Your task to perform on an android device: Is it going to rain tomorrow? Image 0: 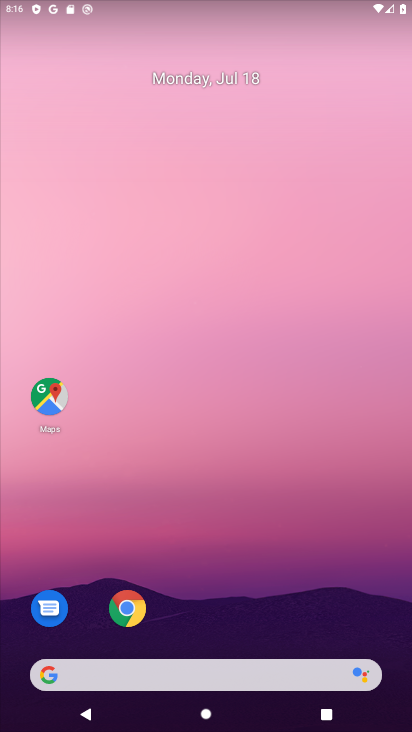
Step 0: click (123, 674)
Your task to perform on an android device: Is it going to rain tomorrow? Image 1: 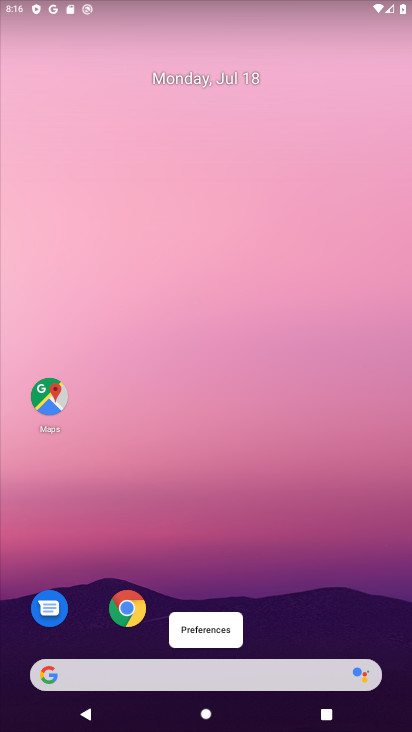
Step 1: click (85, 675)
Your task to perform on an android device: Is it going to rain tomorrow? Image 2: 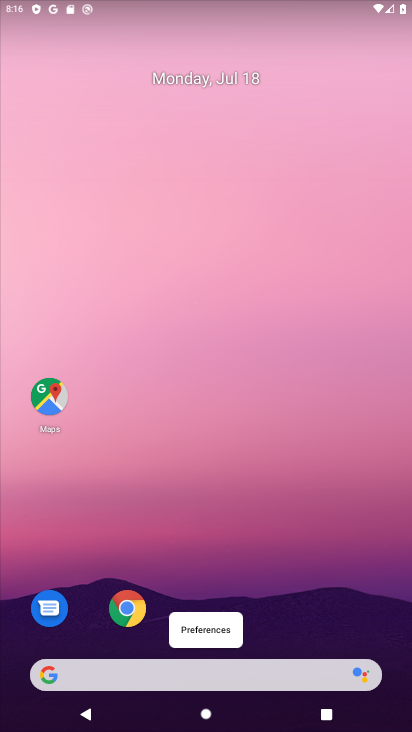
Step 2: click (106, 663)
Your task to perform on an android device: Is it going to rain tomorrow? Image 3: 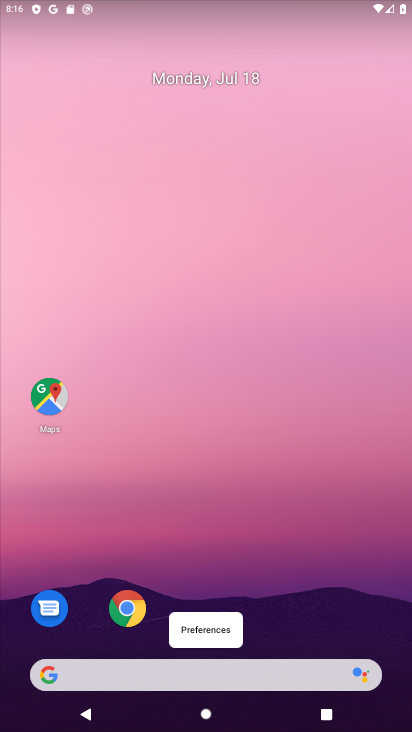
Step 3: click (98, 672)
Your task to perform on an android device: Is it going to rain tomorrow? Image 4: 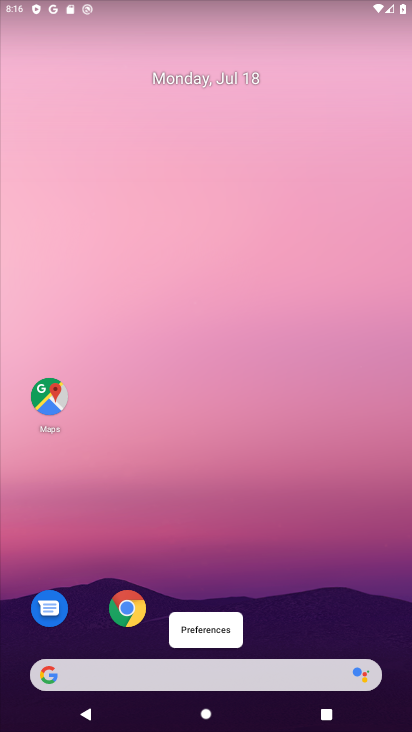
Step 4: click (96, 682)
Your task to perform on an android device: Is it going to rain tomorrow? Image 5: 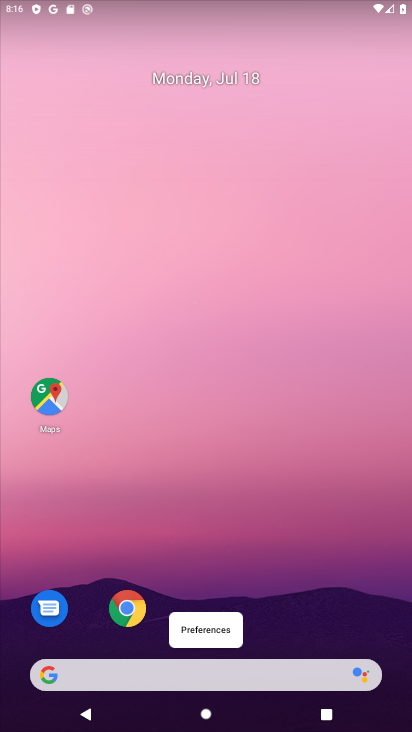
Step 5: click (97, 672)
Your task to perform on an android device: Is it going to rain tomorrow? Image 6: 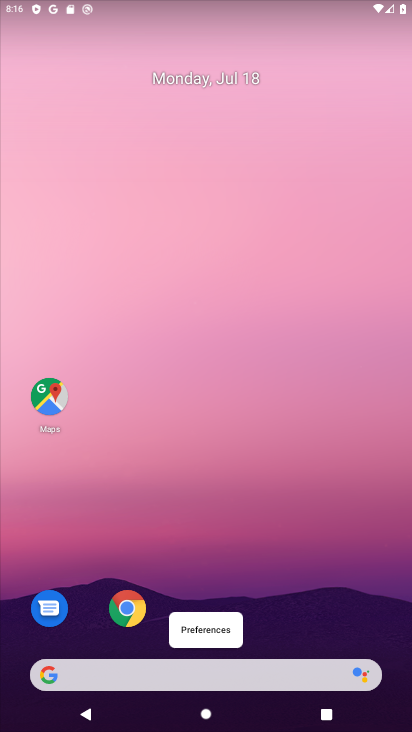
Step 6: click (186, 675)
Your task to perform on an android device: Is it going to rain tomorrow? Image 7: 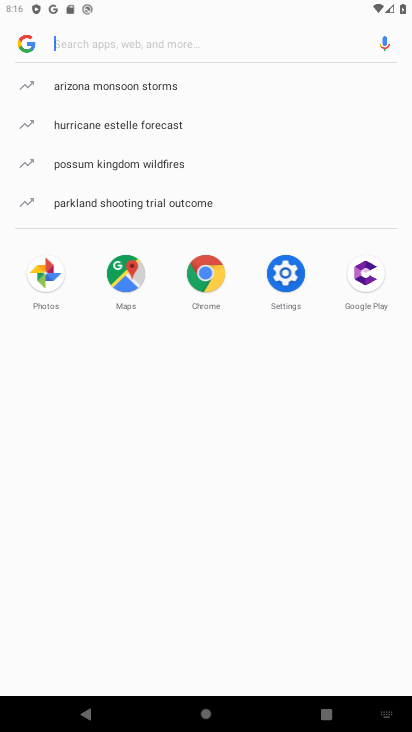
Step 7: type "Is it going to rain tomorrow?"
Your task to perform on an android device: Is it going to rain tomorrow? Image 8: 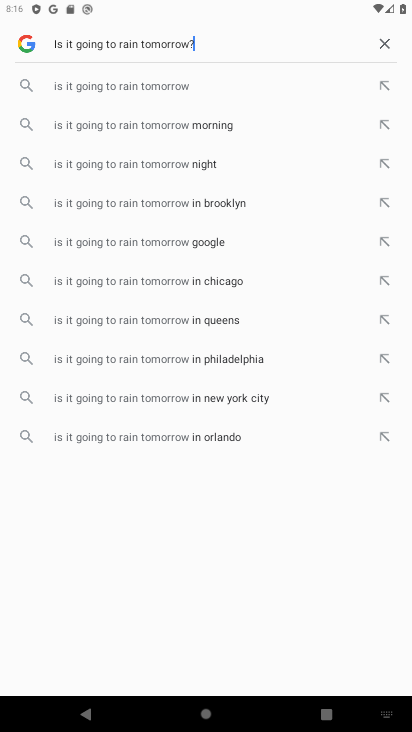
Step 8: type ""
Your task to perform on an android device: Is it going to rain tomorrow? Image 9: 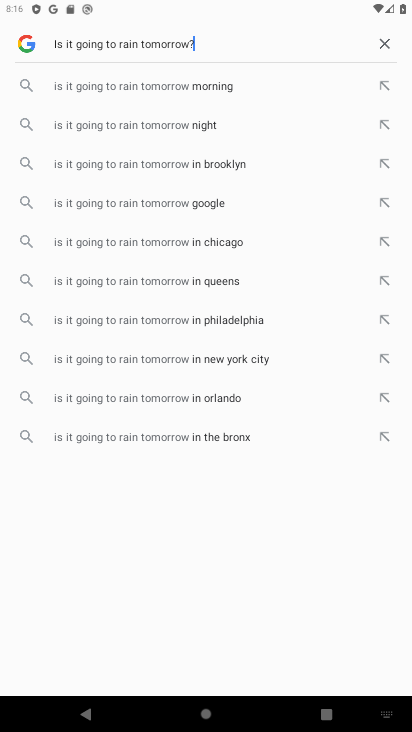
Step 9: type ""
Your task to perform on an android device: Is it going to rain tomorrow? Image 10: 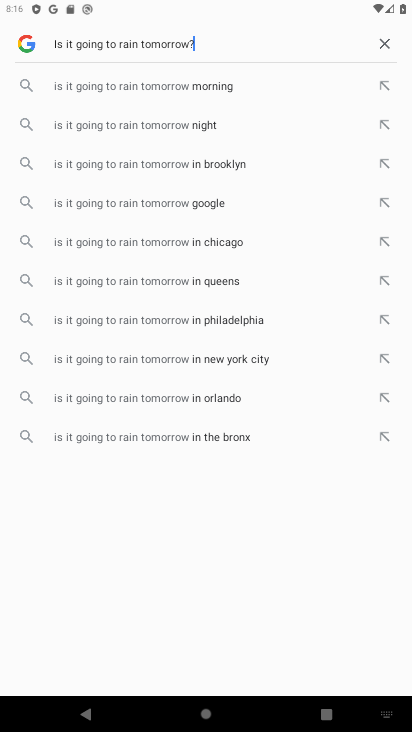
Step 10: type ""
Your task to perform on an android device: Is it going to rain tomorrow? Image 11: 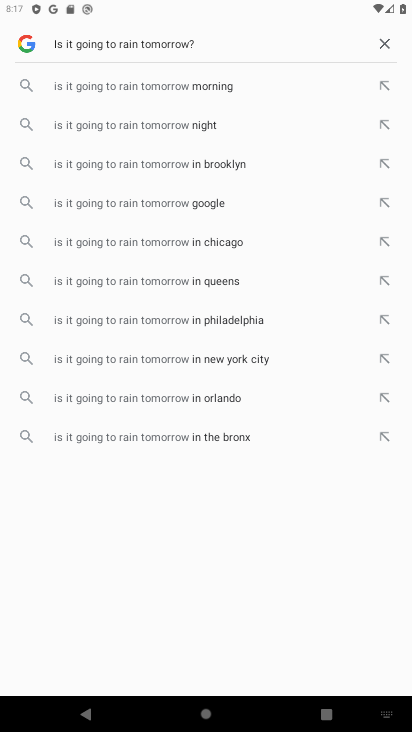
Step 11: task complete